Your task to perform on an android device: Go to ESPN.com Image 0: 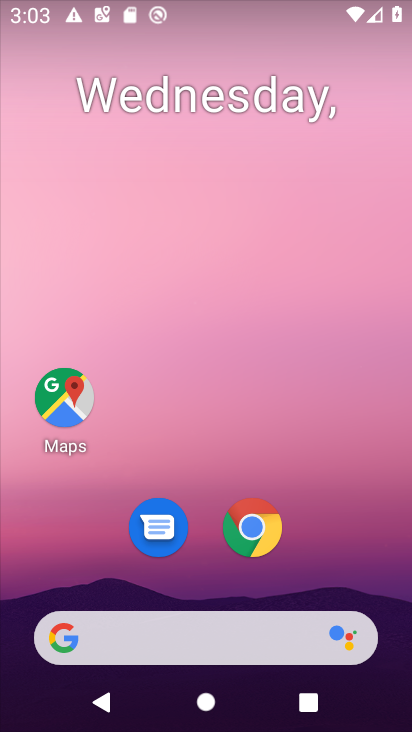
Step 0: drag from (335, 481) to (292, 12)
Your task to perform on an android device: Go to ESPN.com Image 1: 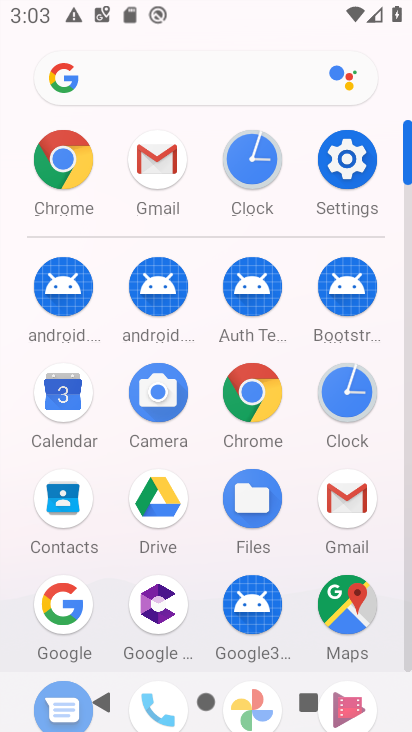
Step 1: click (255, 391)
Your task to perform on an android device: Go to ESPN.com Image 2: 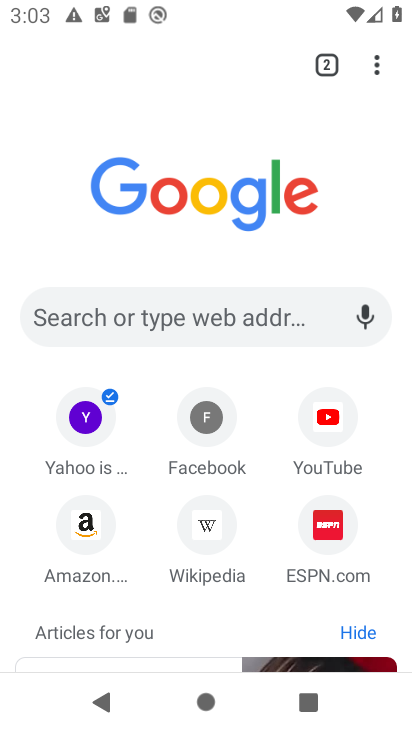
Step 2: click (336, 535)
Your task to perform on an android device: Go to ESPN.com Image 3: 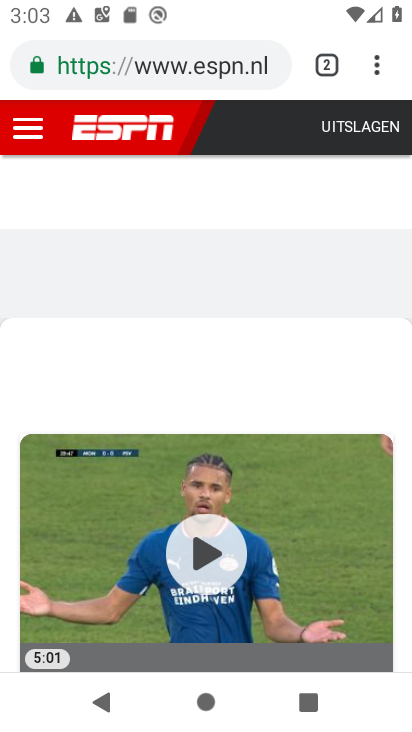
Step 3: task complete